Your task to perform on an android device: Go to internet settings Image 0: 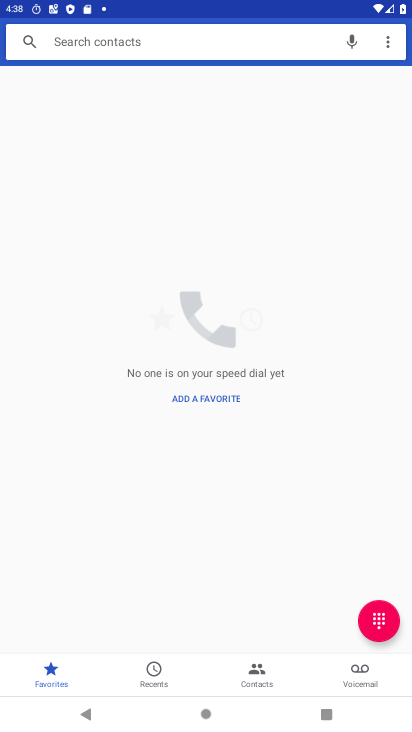
Step 0: press back button
Your task to perform on an android device: Go to internet settings Image 1: 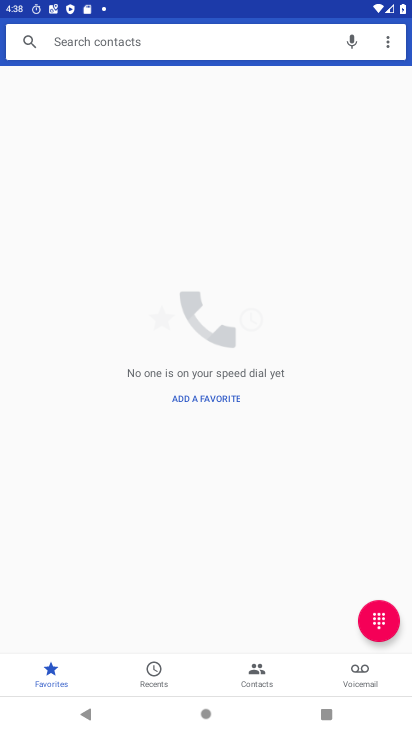
Step 1: press back button
Your task to perform on an android device: Go to internet settings Image 2: 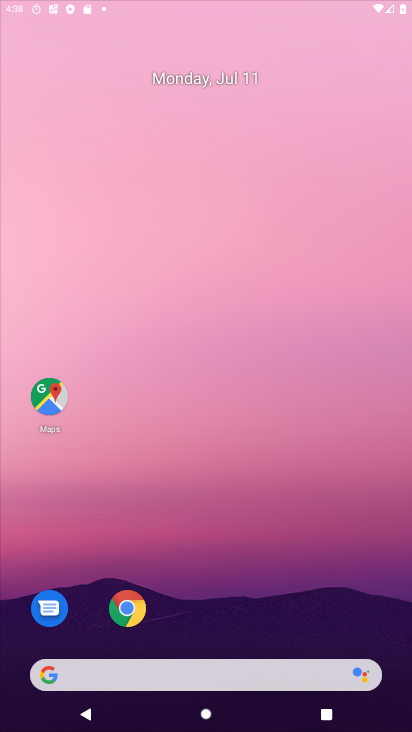
Step 2: press back button
Your task to perform on an android device: Go to internet settings Image 3: 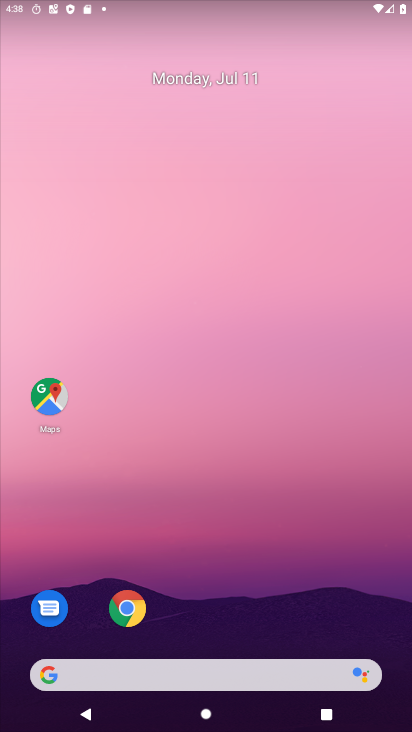
Step 3: drag from (252, 659) to (148, 324)
Your task to perform on an android device: Go to internet settings Image 4: 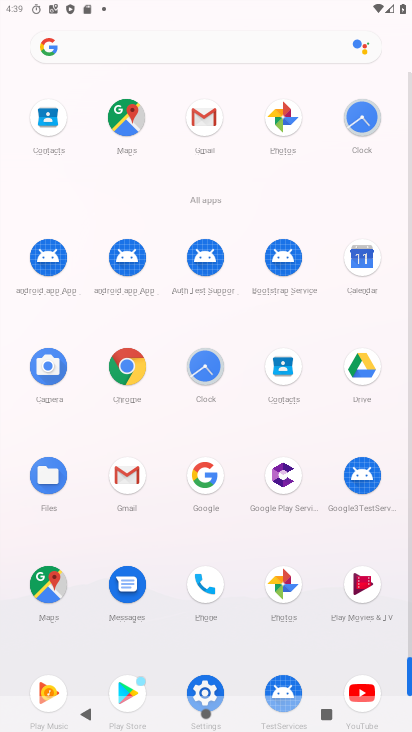
Step 4: click (201, 693)
Your task to perform on an android device: Go to internet settings Image 5: 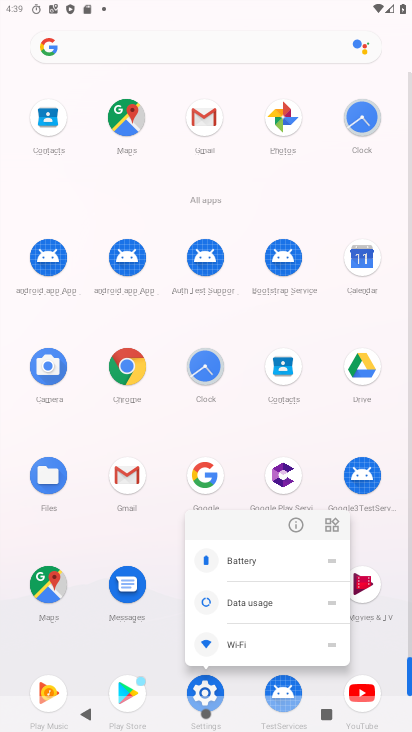
Step 5: click (202, 697)
Your task to perform on an android device: Go to internet settings Image 6: 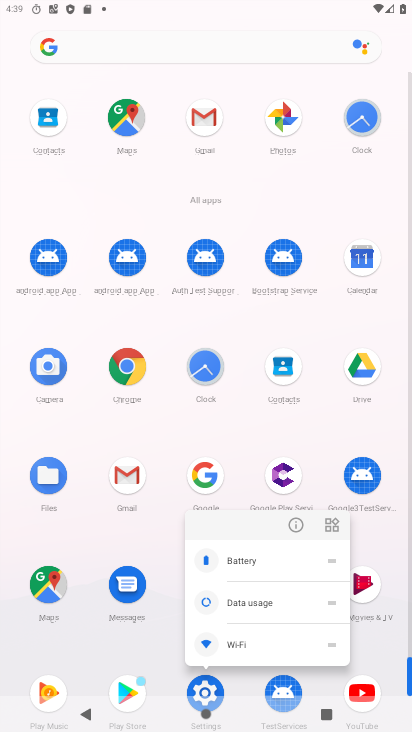
Step 6: click (210, 683)
Your task to perform on an android device: Go to internet settings Image 7: 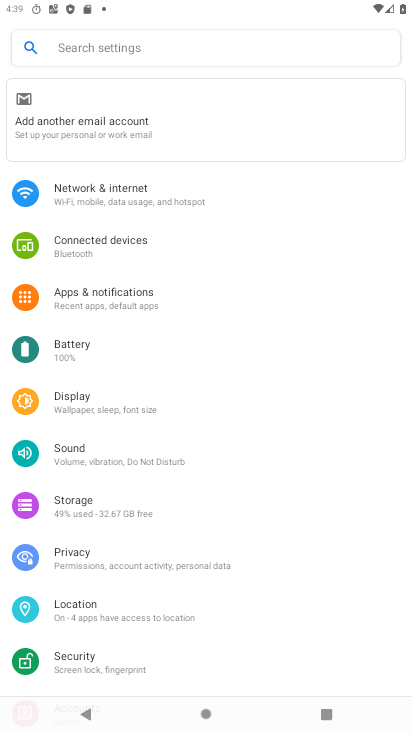
Step 7: click (103, 191)
Your task to perform on an android device: Go to internet settings Image 8: 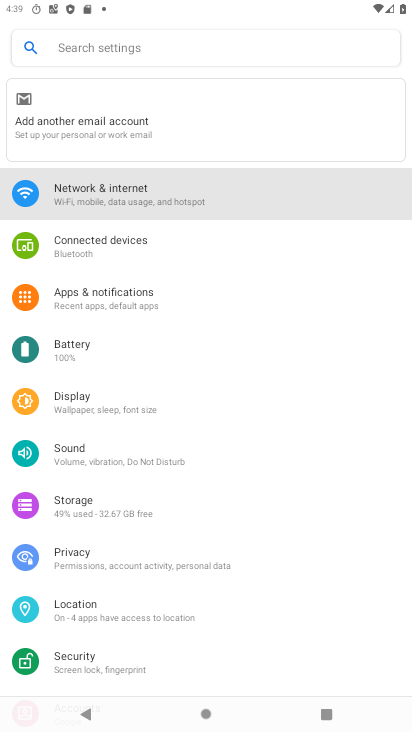
Step 8: click (103, 190)
Your task to perform on an android device: Go to internet settings Image 9: 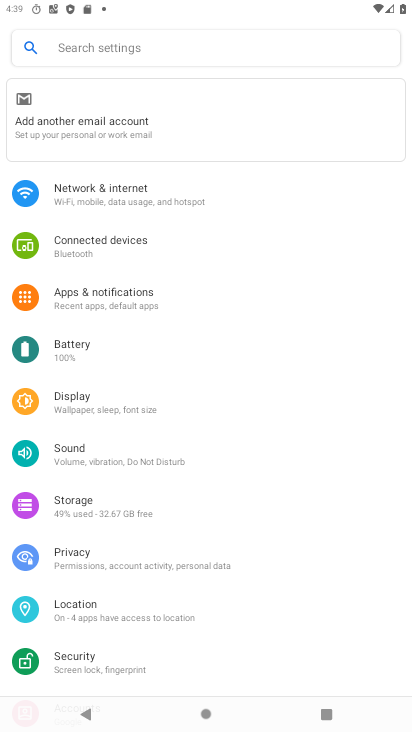
Step 9: click (115, 193)
Your task to perform on an android device: Go to internet settings Image 10: 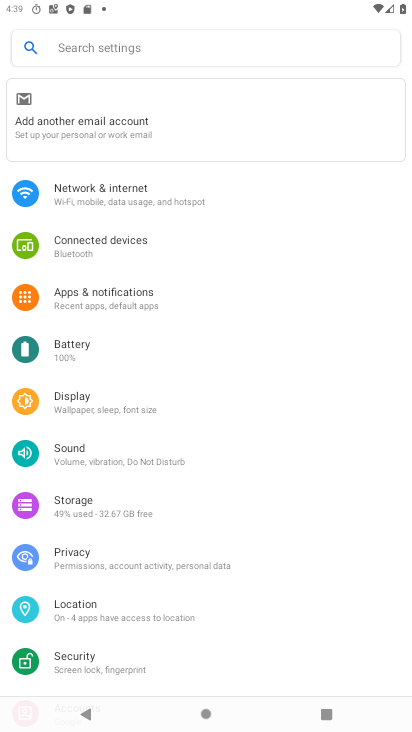
Step 10: click (121, 201)
Your task to perform on an android device: Go to internet settings Image 11: 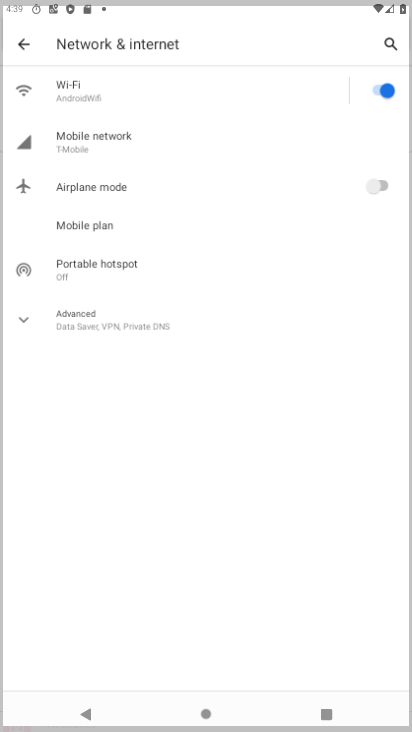
Step 11: click (121, 202)
Your task to perform on an android device: Go to internet settings Image 12: 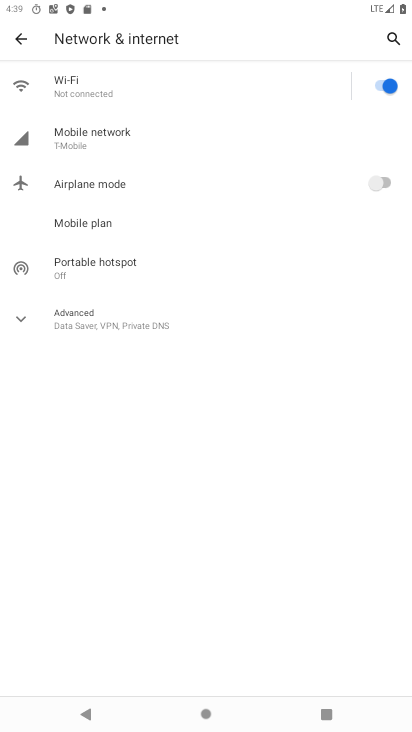
Step 12: click (88, 138)
Your task to perform on an android device: Go to internet settings Image 13: 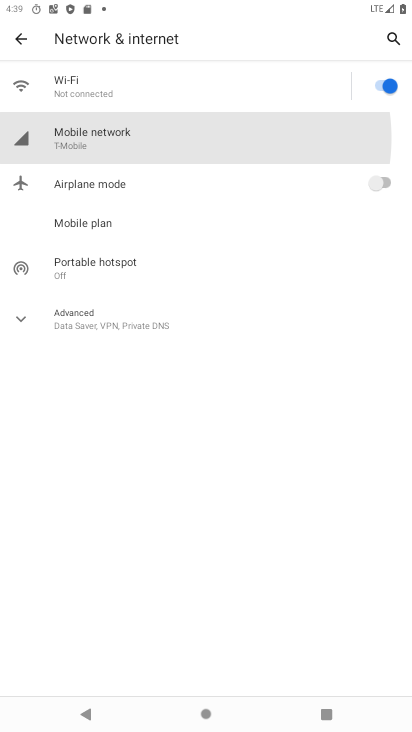
Step 13: click (87, 138)
Your task to perform on an android device: Go to internet settings Image 14: 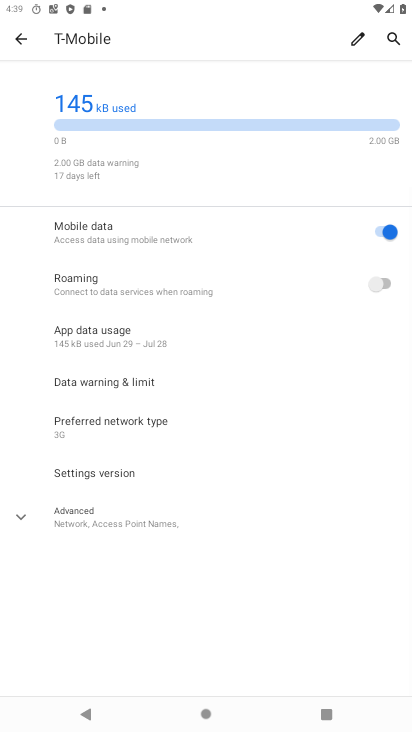
Step 14: task complete